Your task to perform on an android device: open a bookmark in the chrome app Image 0: 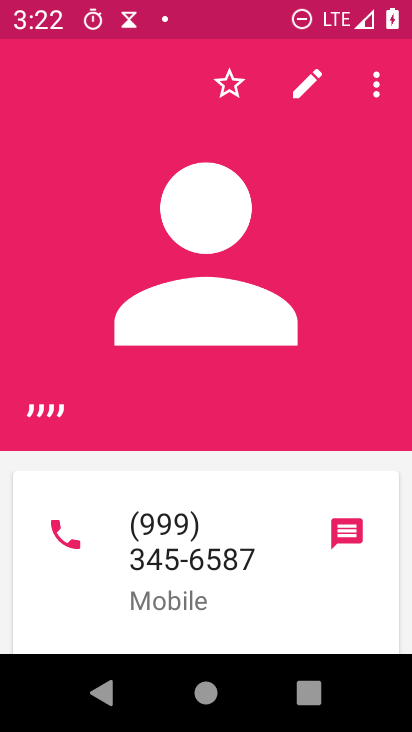
Step 0: press home button
Your task to perform on an android device: open a bookmark in the chrome app Image 1: 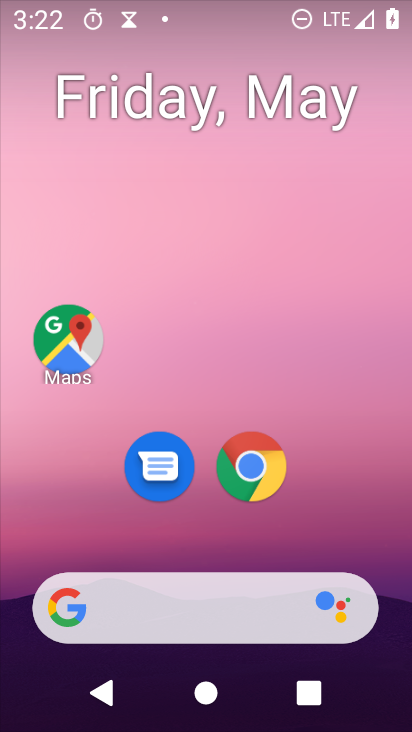
Step 1: drag from (360, 509) to (352, 13)
Your task to perform on an android device: open a bookmark in the chrome app Image 2: 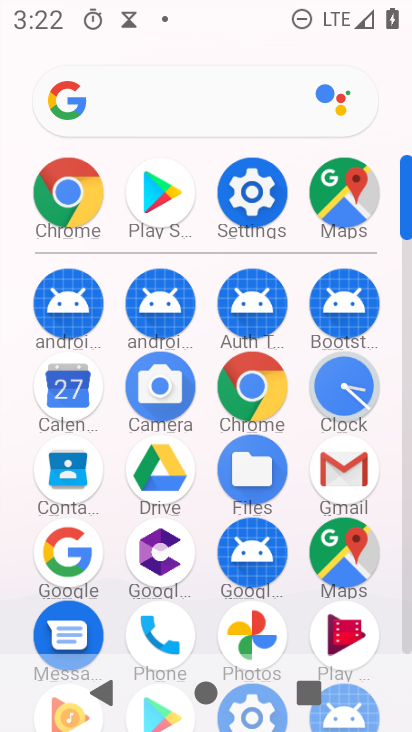
Step 2: click (71, 184)
Your task to perform on an android device: open a bookmark in the chrome app Image 3: 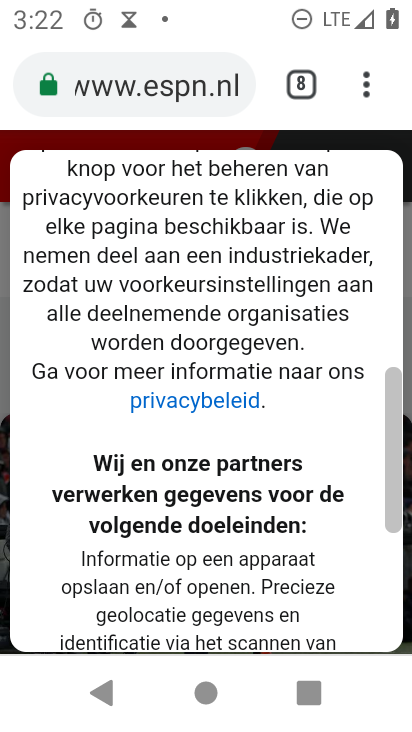
Step 3: drag from (173, 304) to (197, 575)
Your task to perform on an android device: open a bookmark in the chrome app Image 4: 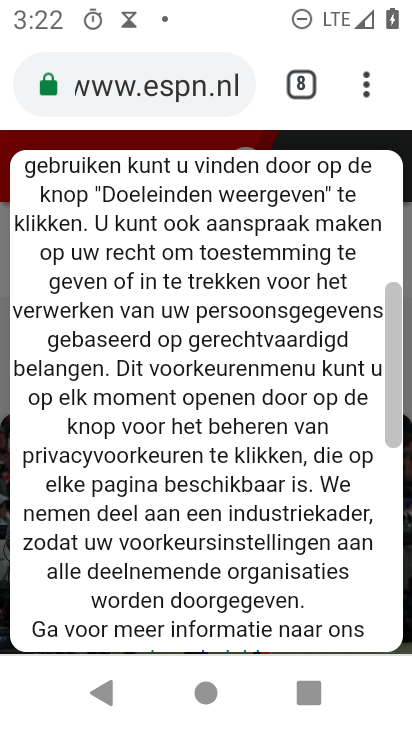
Step 4: click (163, 63)
Your task to perform on an android device: open a bookmark in the chrome app Image 5: 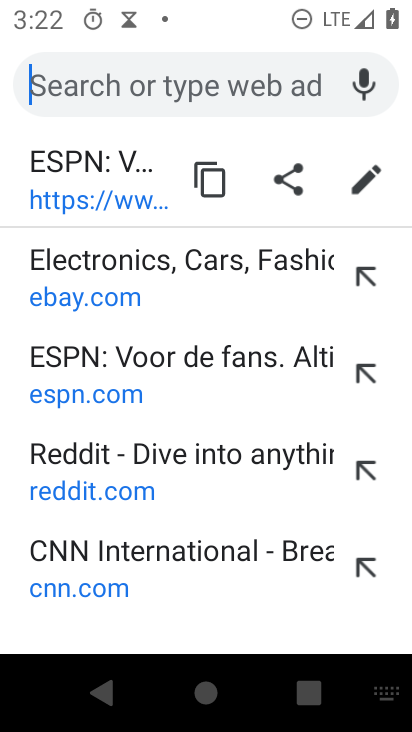
Step 5: task complete